Your task to perform on an android device: Go to CNN.com Image 0: 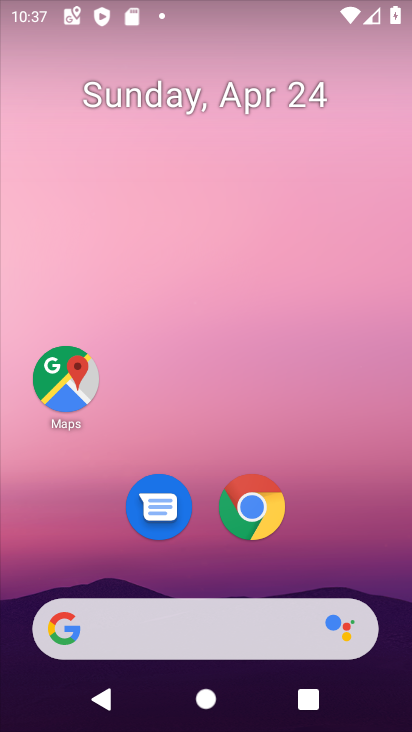
Step 0: click (259, 515)
Your task to perform on an android device: Go to CNN.com Image 1: 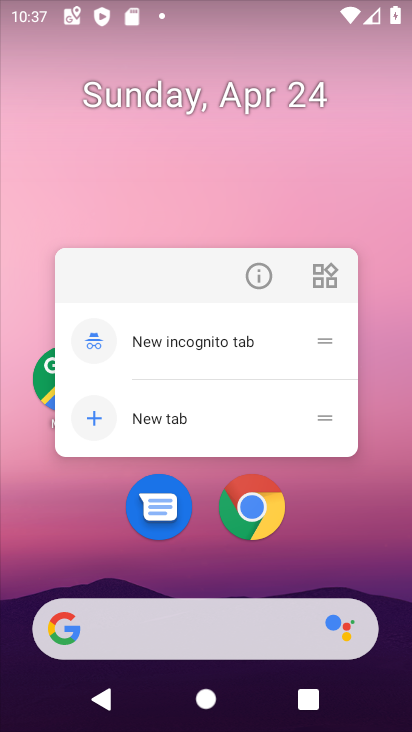
Step 1: click (269, 529)
Your task to perform on an android device: Go to CNN.com Image 2: 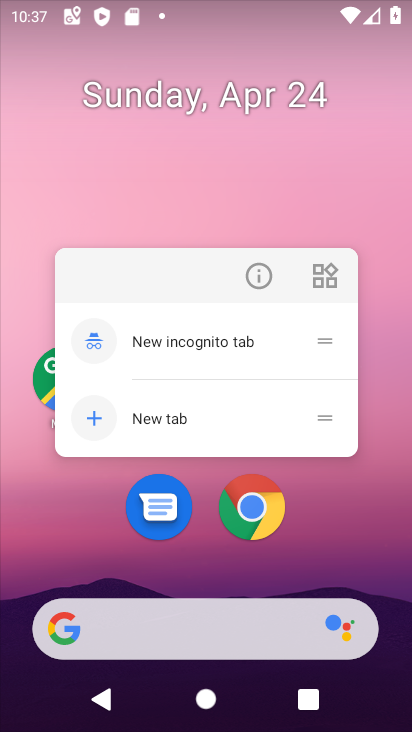
Step 2: click (269, 529)
Your task to perform on an android device: Go to CNN.com Image 3: 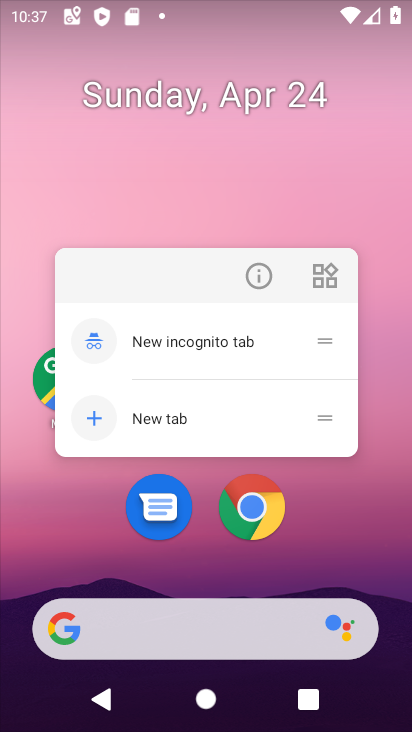
Step 3: click (262, 526)
Your task to perform on an android device: Go to CNN.com Image 4: 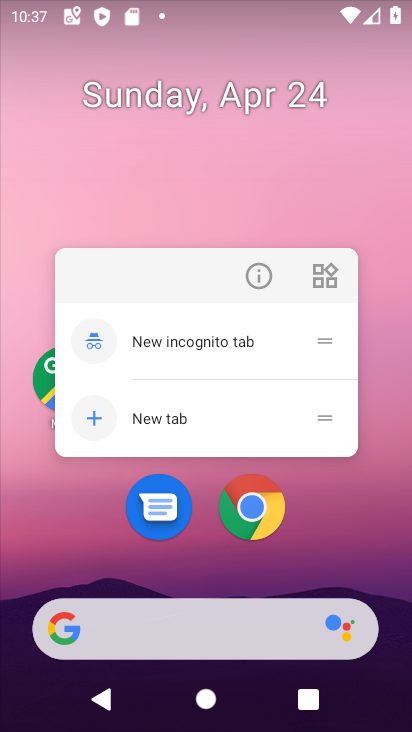
Step 4: click (236, 495)
Your task to perform on an android device: Go to CNN.com Image 5: 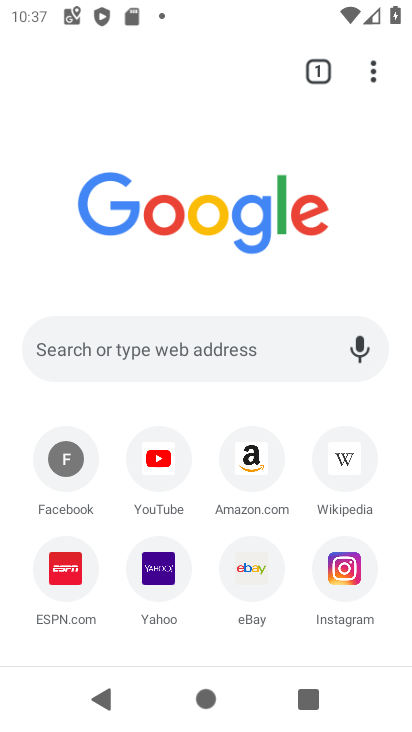
Step 5: click (156, 342)
Your task to perform on an android device: Go to CNN.com Image 6: 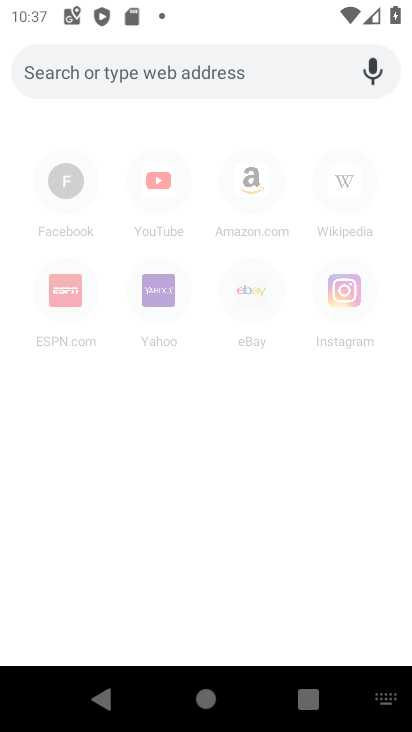
Step 6: type "cnn"
Your task to perform on an android device: Go to CNN.com Image 7: 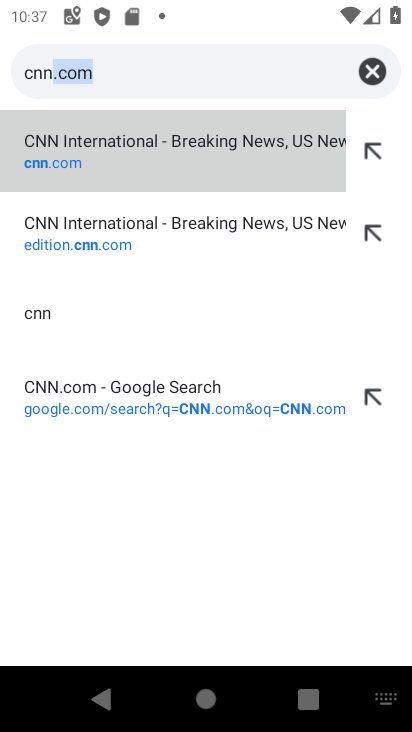
Step 7: click (128, 160)
Your task to perform on an android device: Go to CNN.com Image 8: 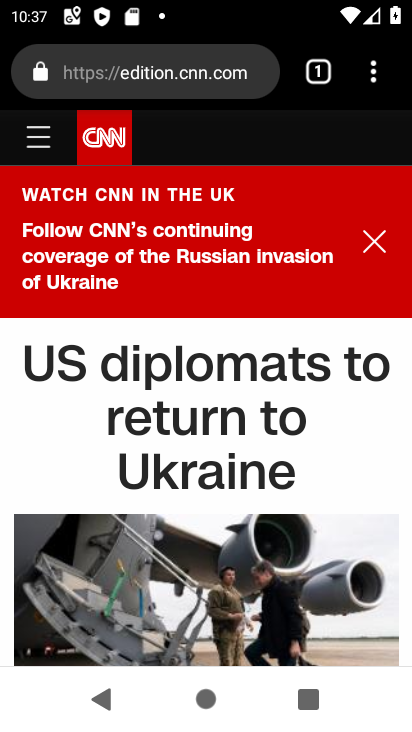
Step 8: task complete